Your task to perform on an android device: Open Google Chrome Image 0: 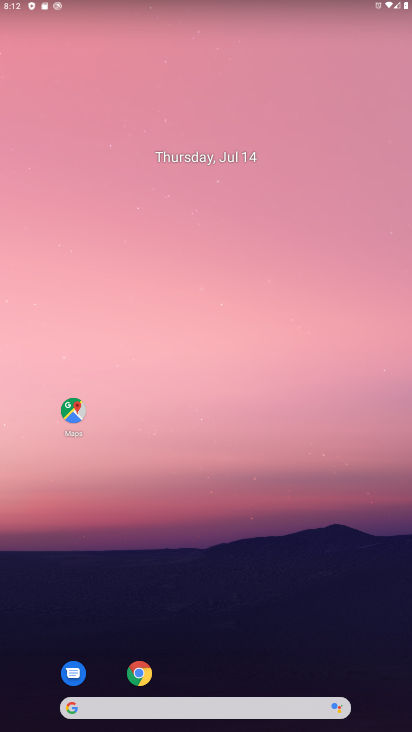
Step 0: click (136, 672)
Your task to perform on an android device: Open Google Chrome Image 1: 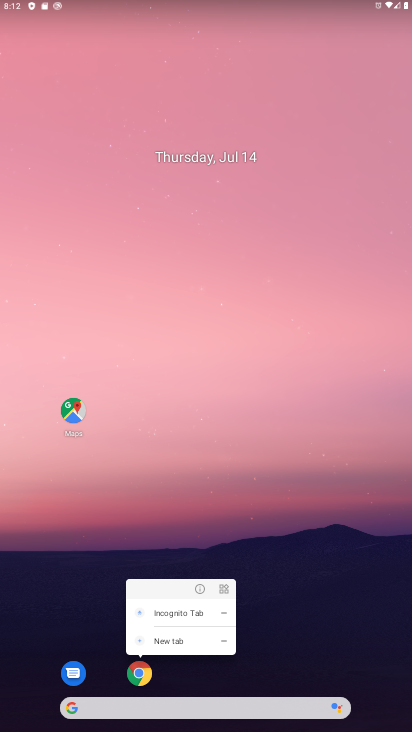
Step 1: click (138, 673)
Your task to perform on an android device: Open Google Chrome Image 2: 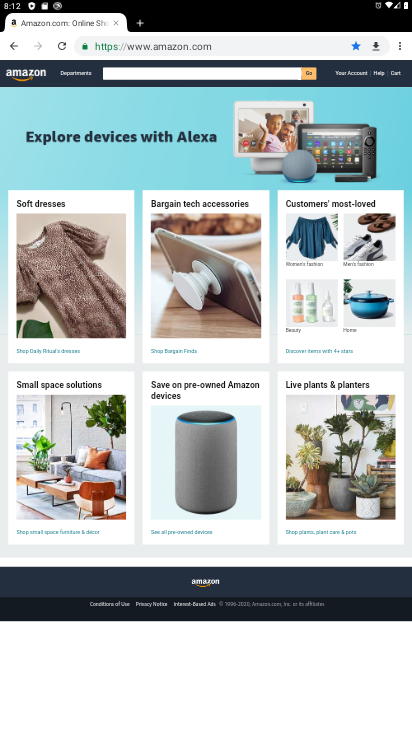
Step 2: task complete